Your task to perform on an android device: toggle notifications settings in the gmail app Image 0: 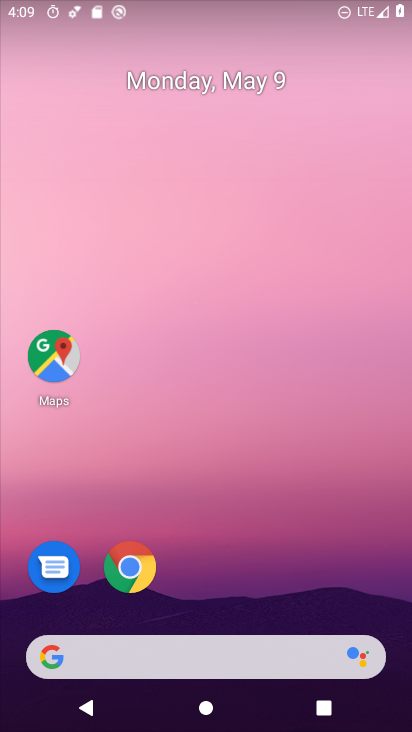
Step 0: drag from (254, 598) to (229, 70)
Your task to perform on an android device: toggle notifications settings in the gmail app Image 1: 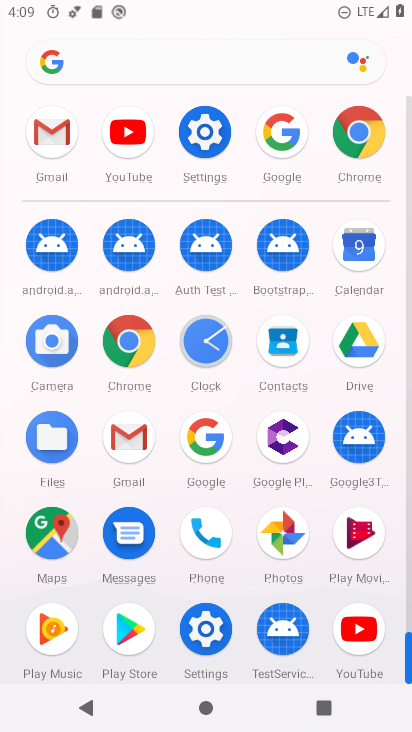
Step 1: click (124, 454)
Your task to perform on an android device: toggle notifications settings in the gmail app Image 2: 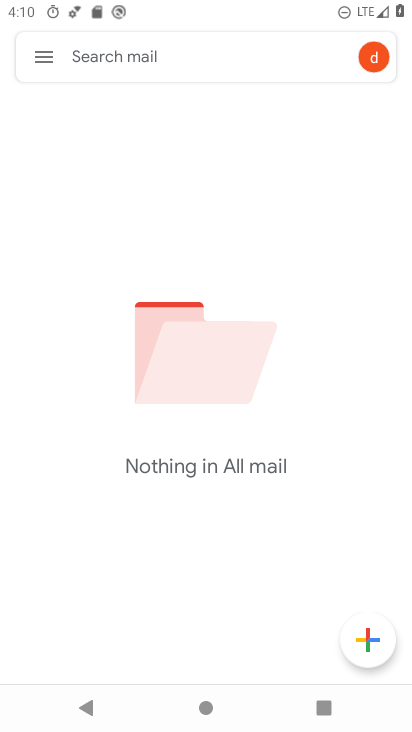
Step 2: click (39, 52)
Your task to perform on an android device: toggle notifications settings in the gmail app Image 3: 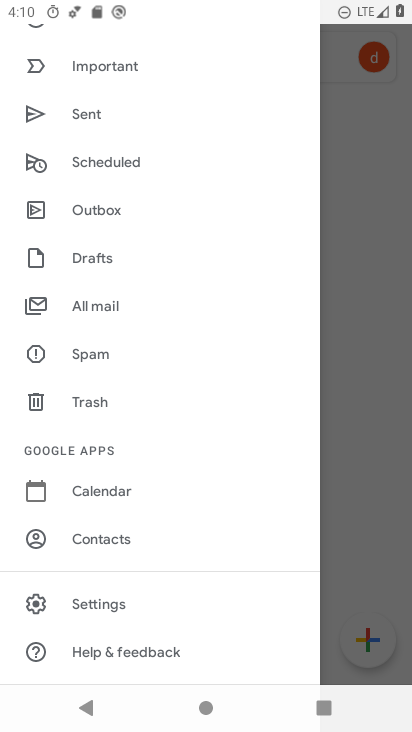
Step 3: click (129, 591)
Your task to perform on an android device: toggle notifications settings in the gmail app Image 4: 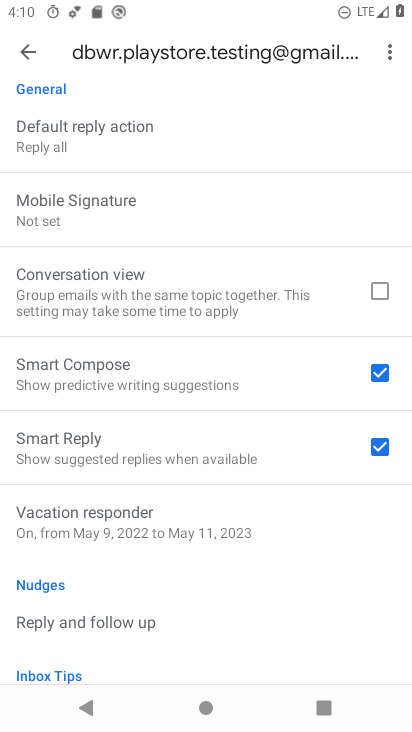
Step 4: drag from (154, 593) to (177, 457)
Your task to perform on an android device: toggle notifications settings in the gmail app Image 5: 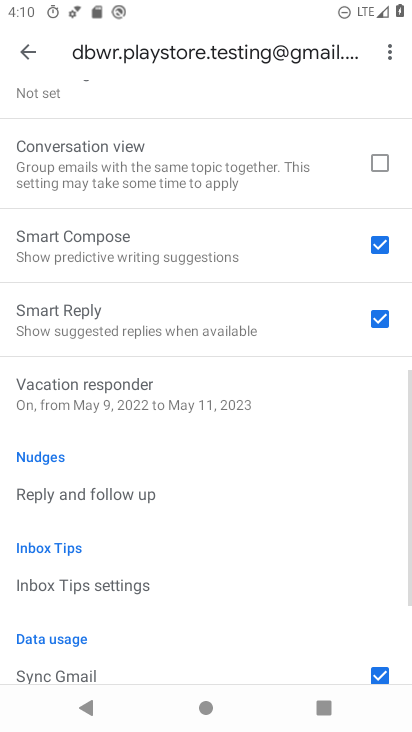
Step 5: drag from (228, 123) to (251, 579)
Your task to perform on an android device: toggle notifications settings in the gmail app Image 6: 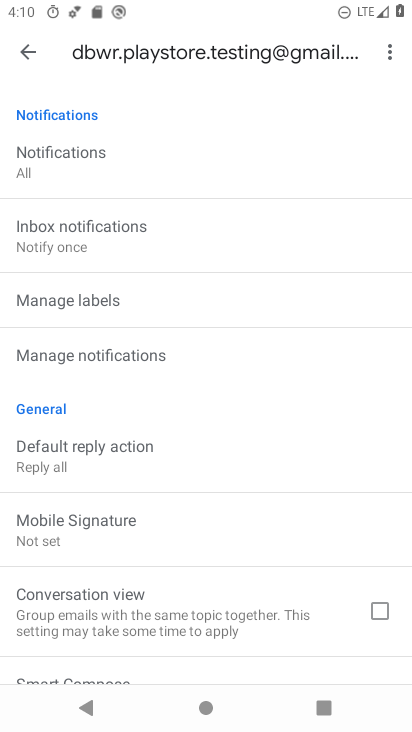
Step 6: click (157, 346)
Your task to perform on an android device: toggle notifications settings in the gmail app Image 7: 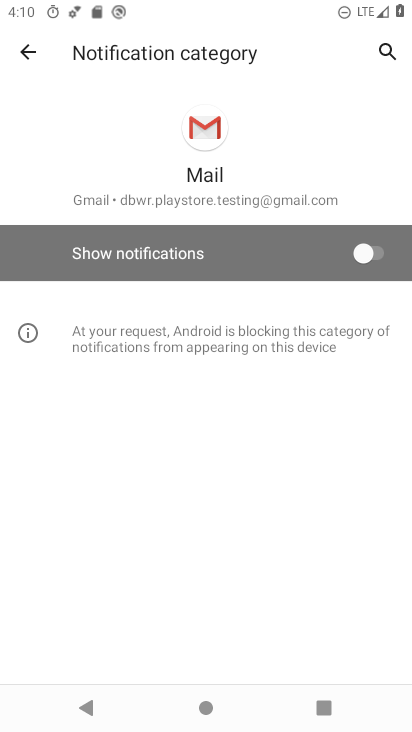
Step 7: click (375, 254)
Your task to perform on an android device: toggle notifications settings in the gmail app Image 8: 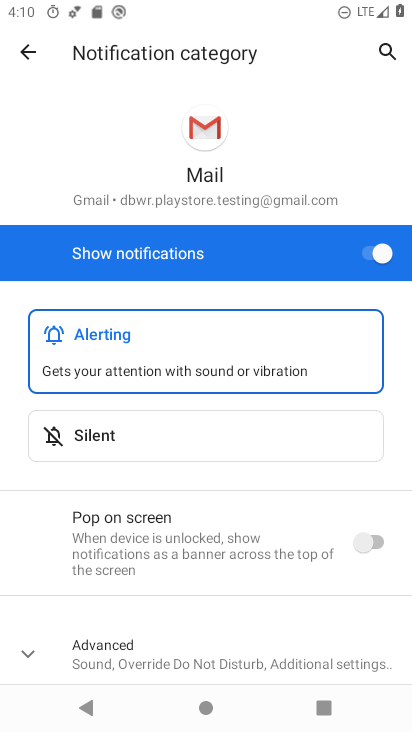
Step 8: task complete